Your task to perform on an android device: set default search engine in the chrome app Image 0: 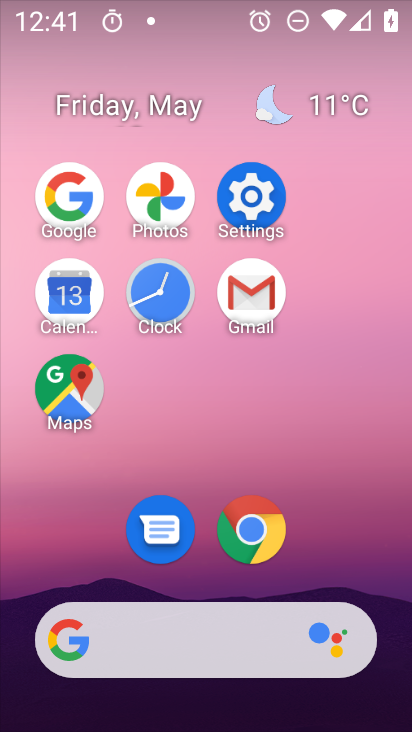
Step 0: click (266, 527)
Your task to perform on an android device: set default search engine in the chrome app Image 1: 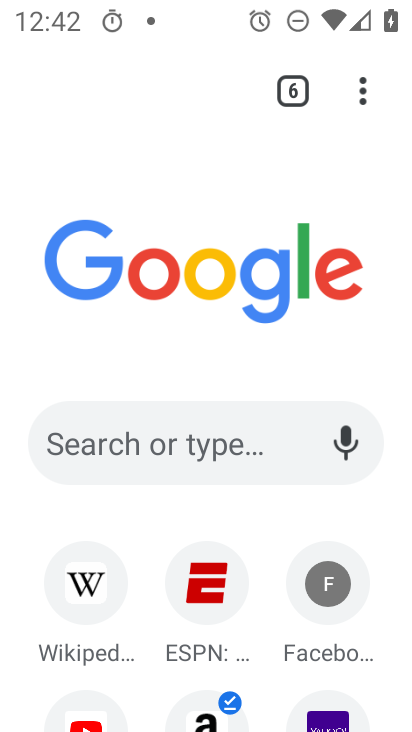
Step 1: click (363, 95)
Your task to perform on an android device: set default search engine in the chrome app Image 2: 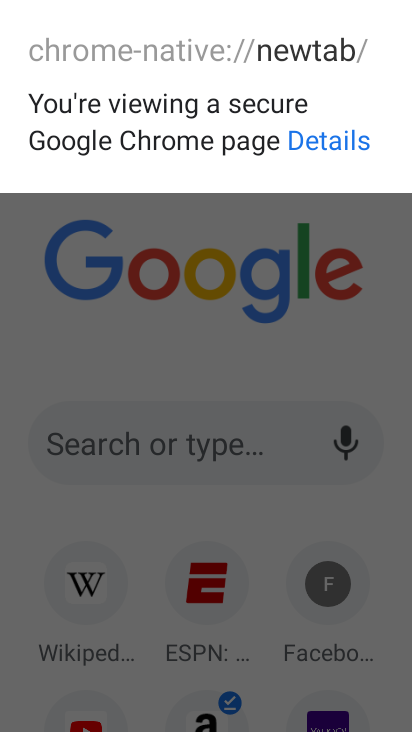
Step 2: click (367, 309)
Your task to perform on an android device: set default search engine in the chrome app Image 3: 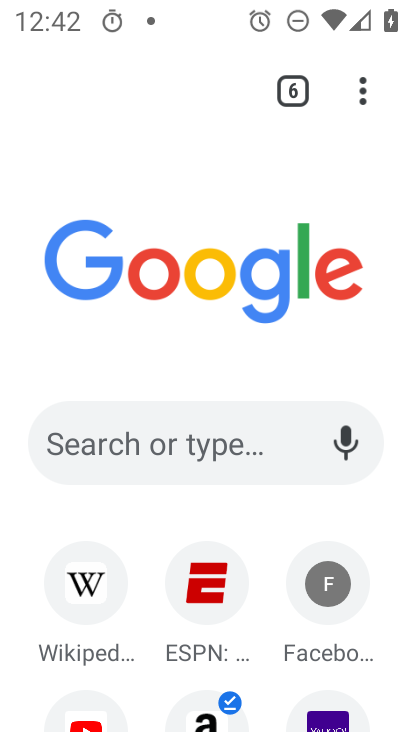
Step 3: click (389, 95)
Your task to perform on an android device: set default search engine in the chrome app Image 4: 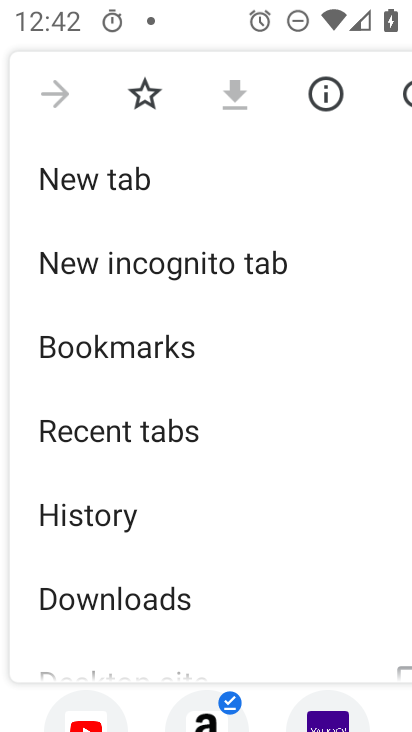
Step 4: drag from (285, 614) to (294, 206)
Your task to perform on an android device: set default search engine in the chrome app Image 5: 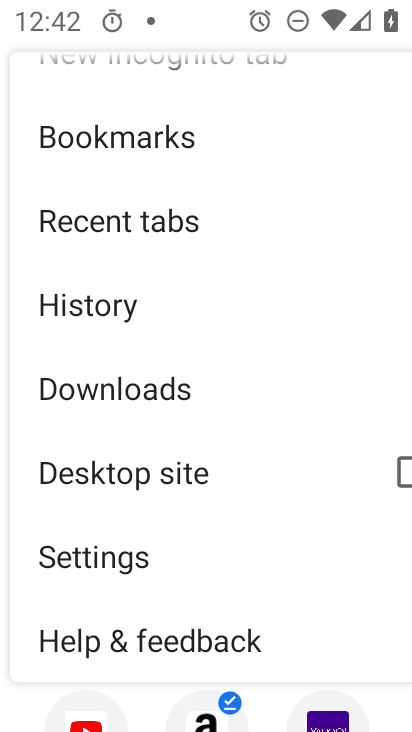
Step 5: click (187, 555)
Your task to perform on an android device: set default search engine in the chrome app Image 6: 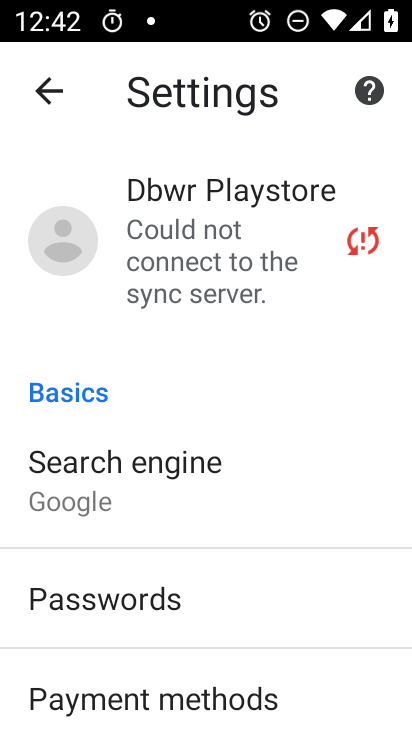
Step 6: task complete